Your task to perform on an android device: change the clock display to analog Image 0: 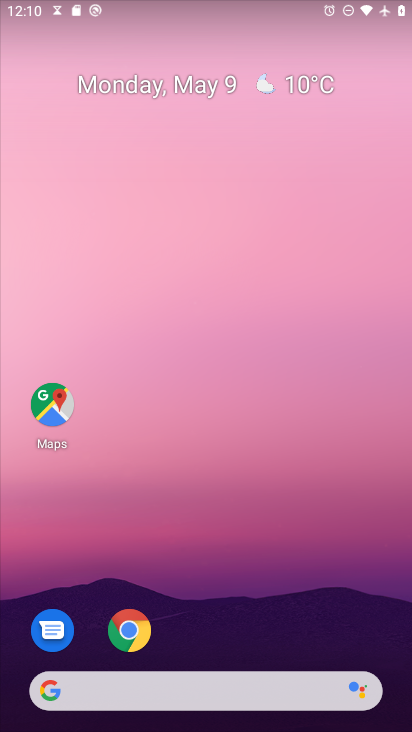
Step 0: press home button
Your task to perform on an android device: change the clock display to analog Image 1: 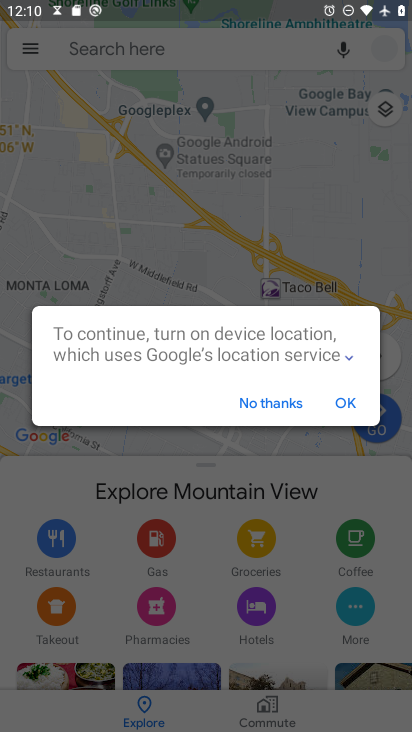
Step 1: press home button
Your task to perform on an android device: change the clock display to analog Image 2: 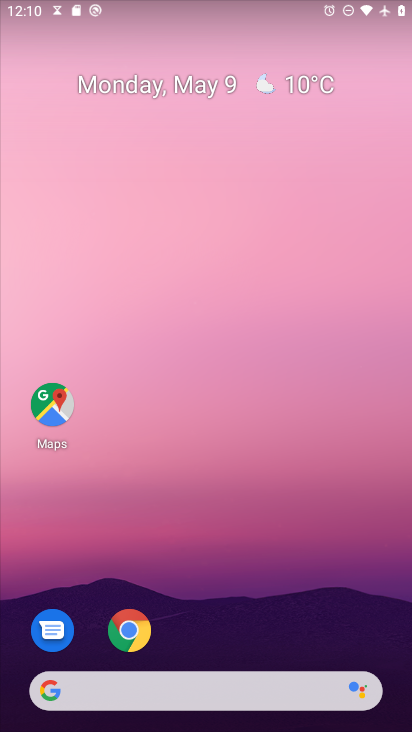
Step 2: drag from (172, 698) to (349, 64)
Your task to perform on an android device: change the clock display to analog Image 3: 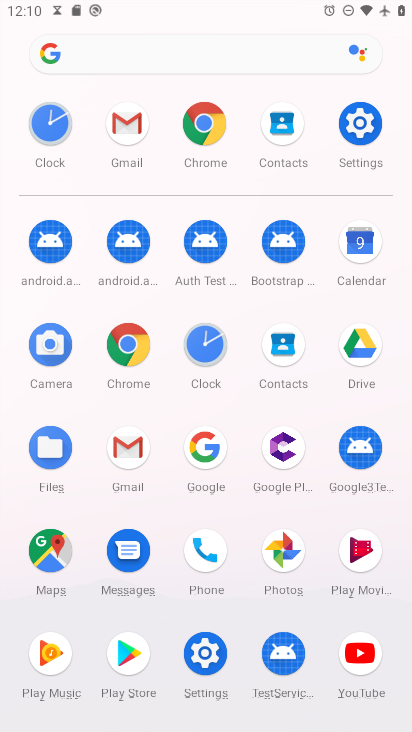
Step 3: click (206, 340)
Your task to perform on an android device: change the clock display to analog Image 4: 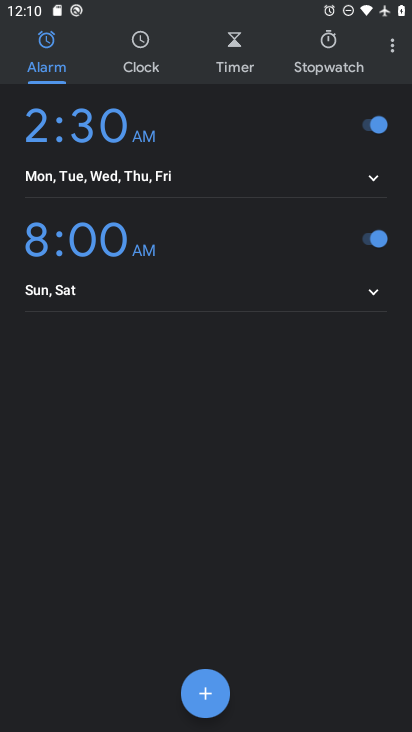
Step 4: click (394, 43)
Your task to perform on an android device: change the clock display to analog Image 5: 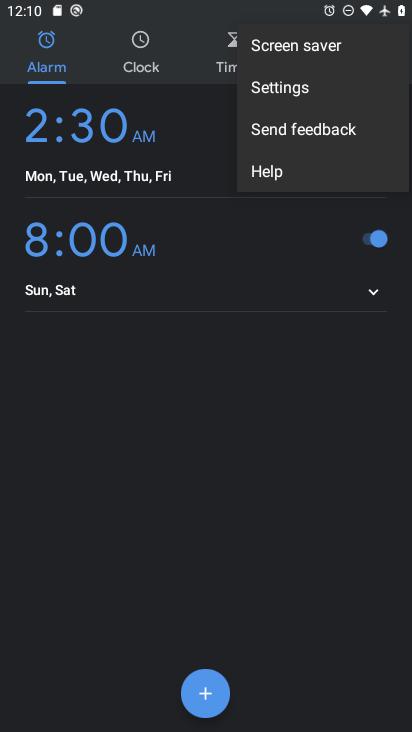
Step 5: click (282, 90)
Your task to perform on an android device: change the clock display to analog Image 6: 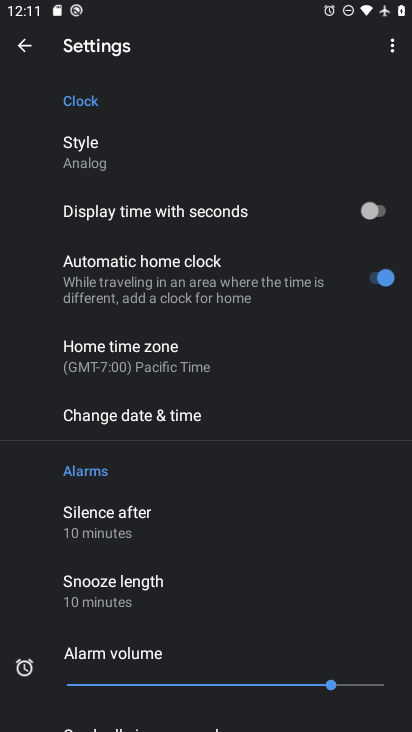
Step 6: task complete